Your task to perform on an android device: delete a single message in the gmail app Image 0: 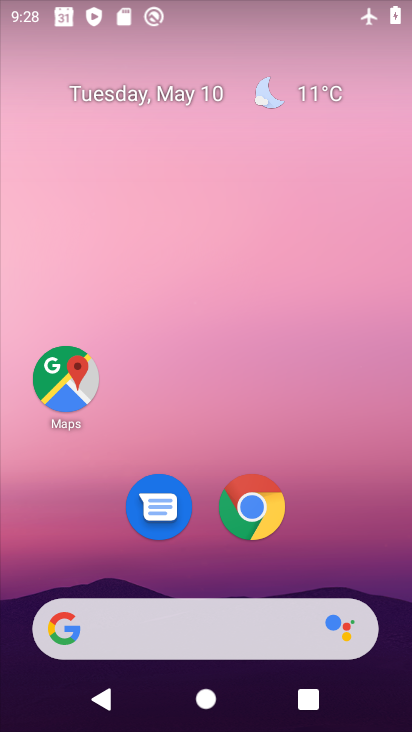
Step 0: drag from (216, 550) to (220, 62)
Your task to perform on an android device: delete a single message in the gmail app Image 1: 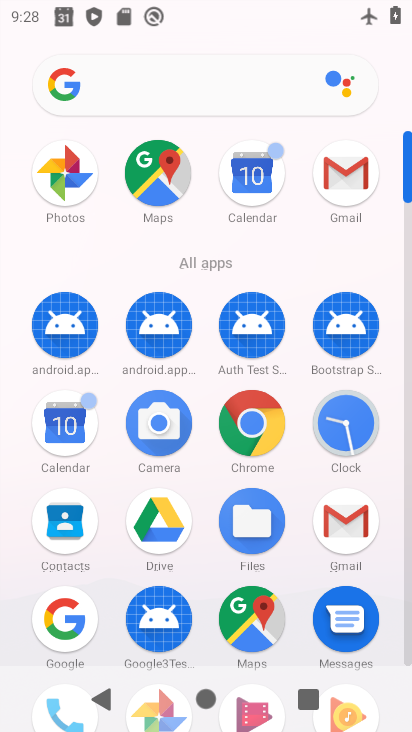
Step 1: click (353, 182)
Your task to perform on an android device: delete a single message in the gmail app Image 2: 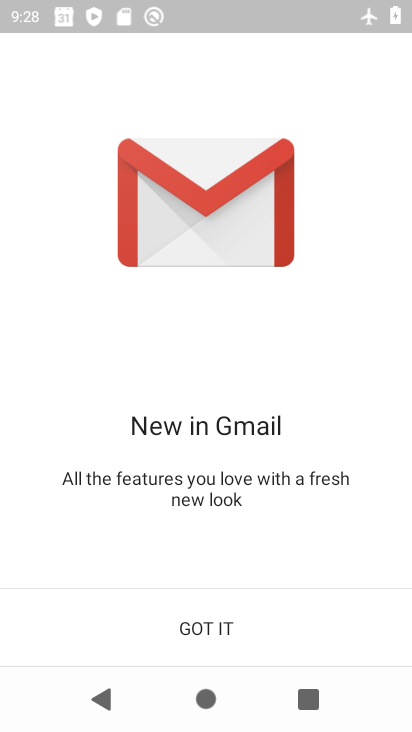
Step 2: click (255, 600)
Your task to perform on an android device: delete a single message in the gmail app Image 3: 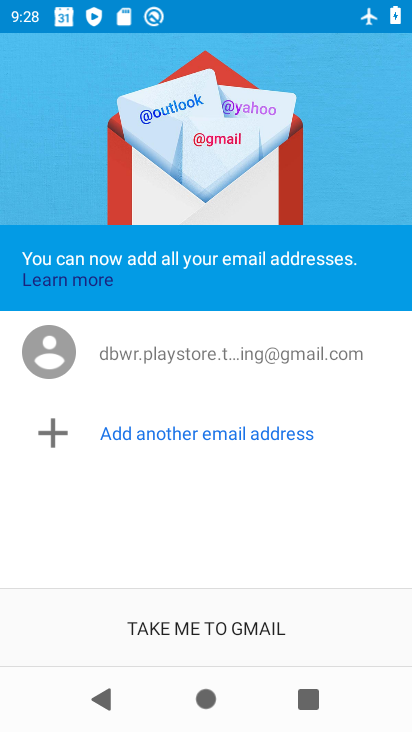
Step 3: click (186, 618)
Your task to perform on an android device: delete a single message in the gmail app Image 4: 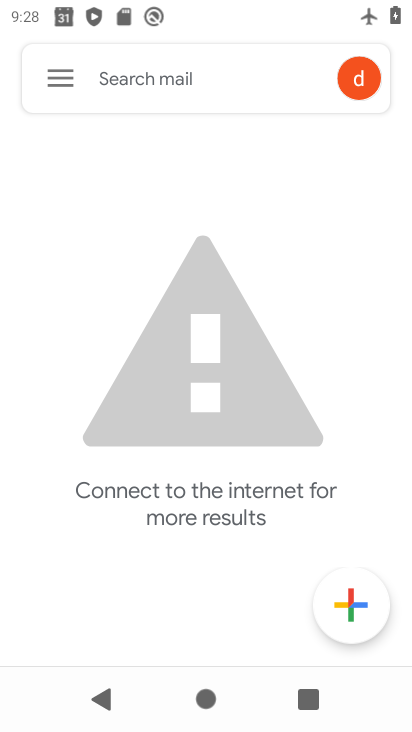
Step 4: drag from (273, 24) to (295, 578)
Your task to perform on an android device: delete a single message in the gmail app Image 5: 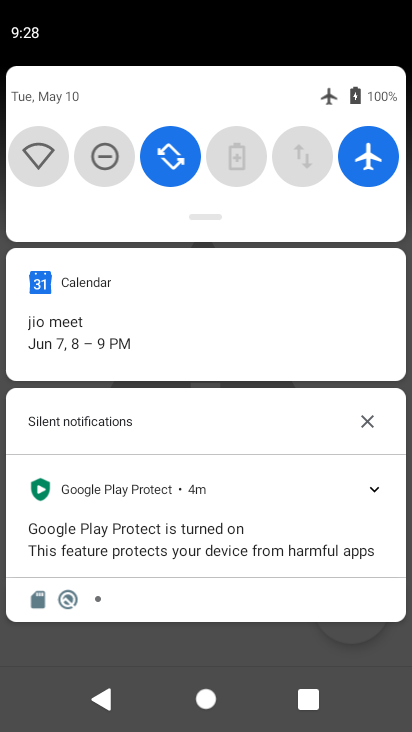
Step 5: click (350, 155)
Your task to perform on an android device: delete a single message in the gmail app Image 6: 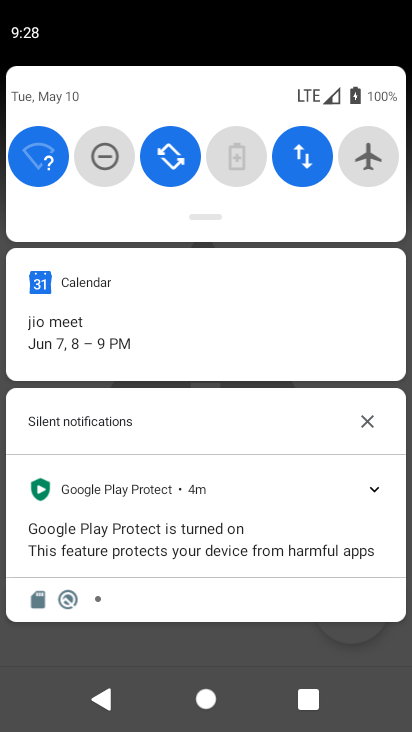
Step 6: click (256, 639)
Your task to perform on an android device: delete a single message in the gmail app Image 7: 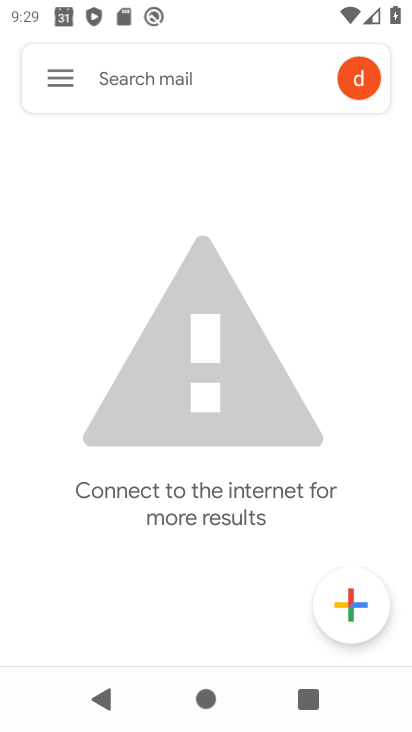
Step 7: task complete